Your task to perform on an android device: Open internet settings Image 0: 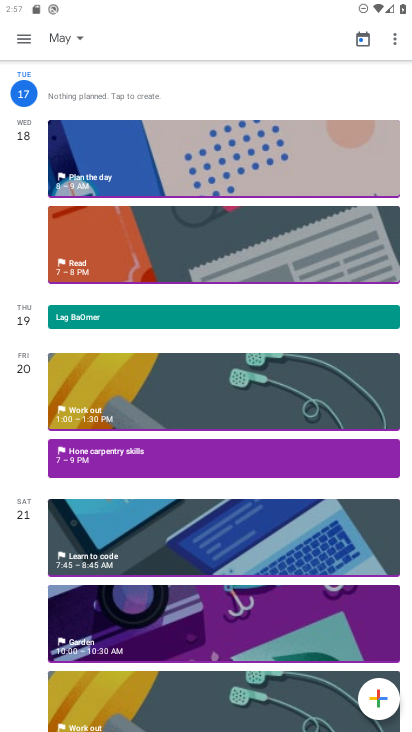
Step 0: press home button
Your task to perform on an android device: Open internet settings Image 1: 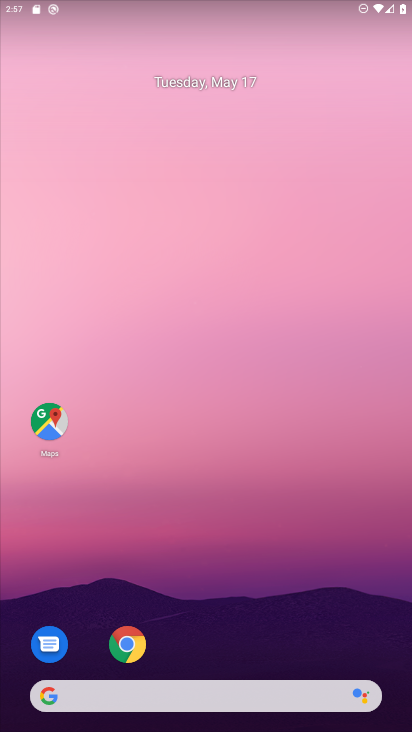
Step 1: drag from (213, 336) to (192, 186)
Your task to perform on an android device: Open internet settings Image 2: 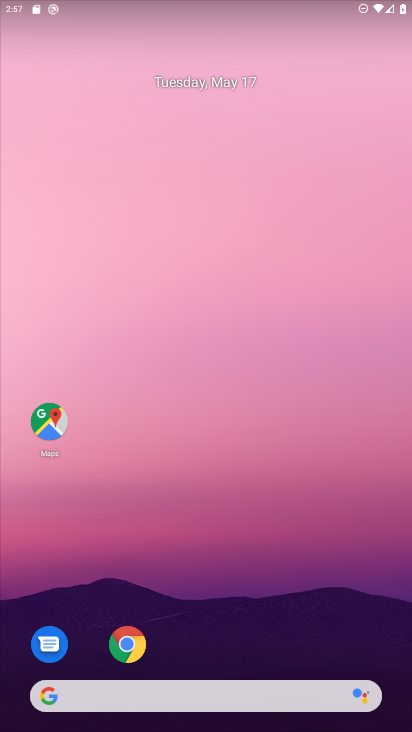
Step 2: drag from (208, 641) to (146, 289)
Your task to perform on an android device: Open internet settings Image 3: 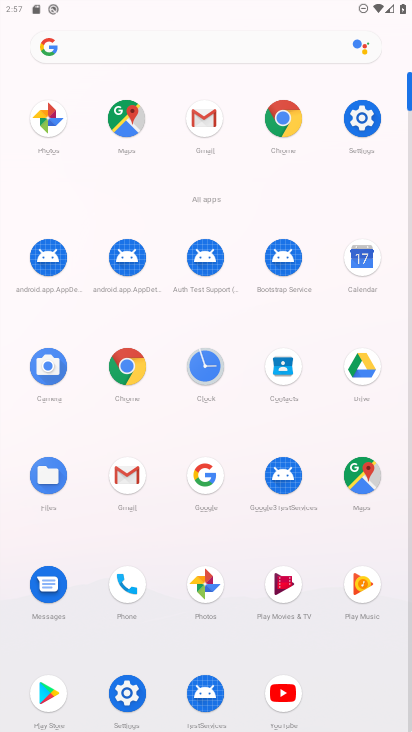
Step 3: click (367, 108)
Your task to perform on an android device: Open internet settings Image 4: 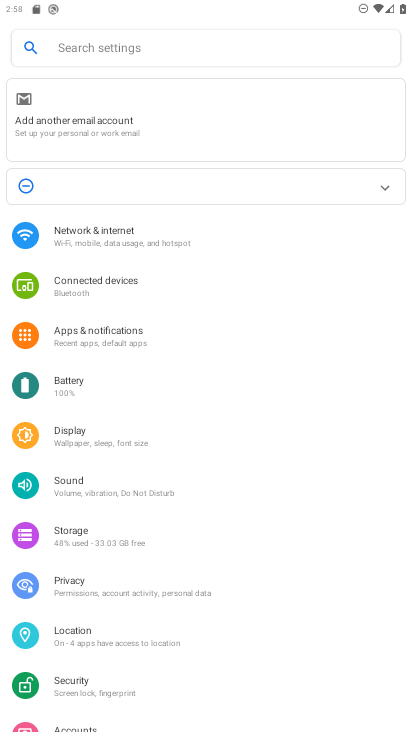
Step 4: click (150, 238)
Your task to perform on an android device: Open internet settings Image 5: 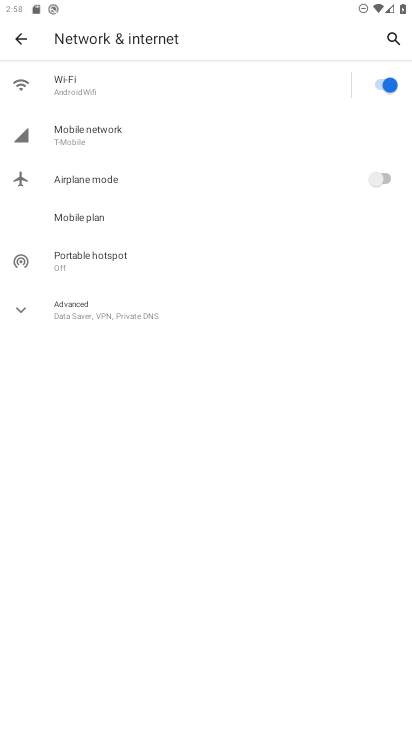
Step 5: task complete